Your task to perform on an android device: Open Google Chrome and open the bookmarks view Image 0: 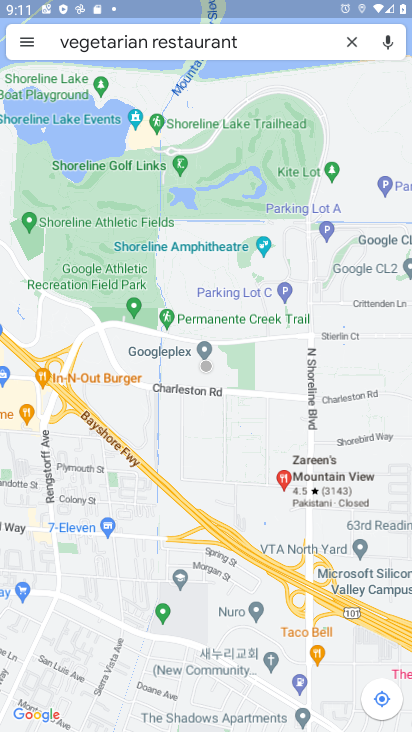
Step 0: drag from (185, 637) to (265, 141)
Your task to perform on an android device: Open Google Chrome and open the bookmarks view Image 1: 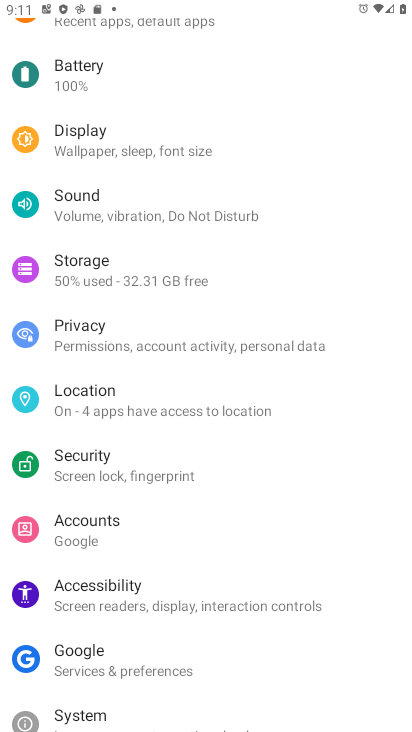
Step 1: press back button
Your task to perform on an android device: Open Google Chrome and open the bookmarks view Image 2: 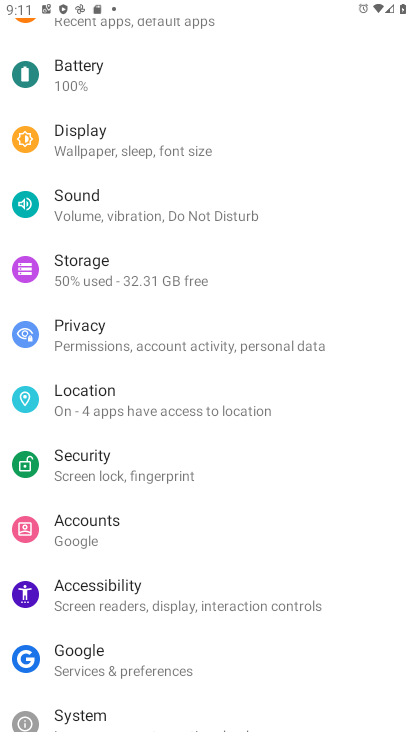
Step 2: press back button
Your task to perform on an android device: Open Google Chrome and open the bookmarks view Image 3: 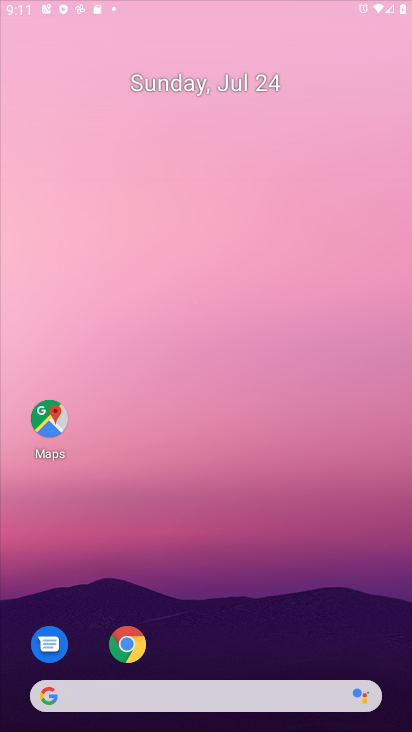
Step 3: press back button
Your task to perform on an android device: Open Google Chrome and open the bookmarks view Image 4: 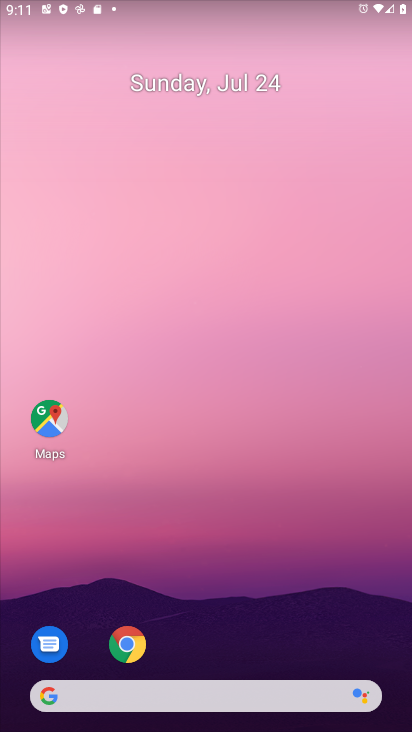
Step 4: drag from (226, 599) to (261, 176)
Your task to perform on an android device: Open Google Chrome and open the bookmarks view Image 5: 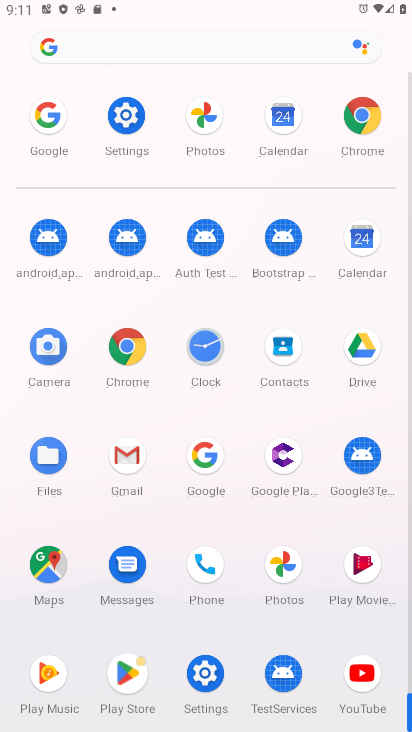
Step 5: click (361, 124)
Your task to perform on an android device: Open Google Chrome and open the bookmarks view Image 6: 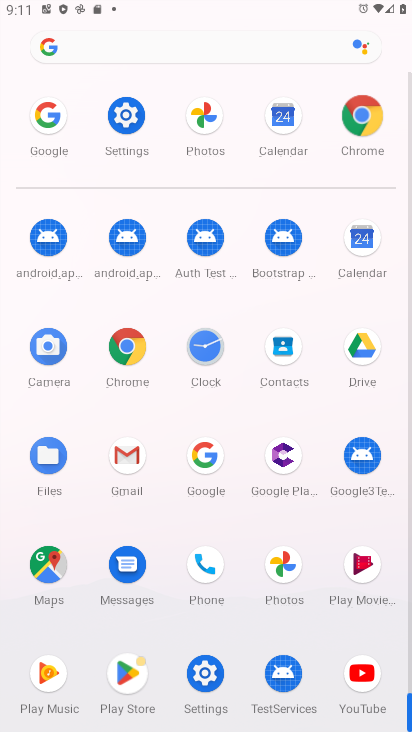
Step 6: click (360, 129)
Your task to perform on an android device: Open Google Chrome and open the bookmarks view Image 7: 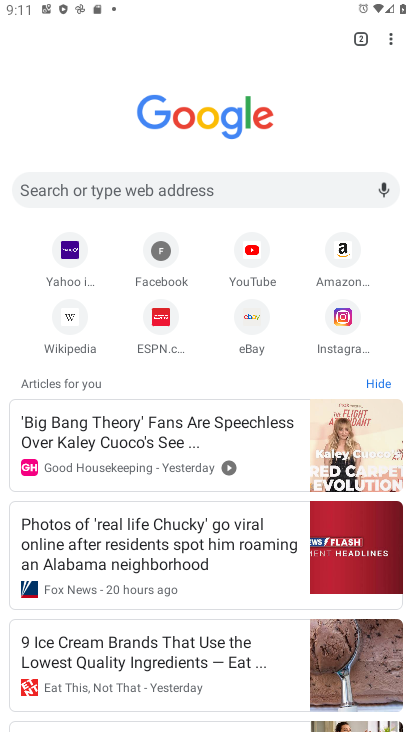
Step 7: drag from (389, 44) to (252, 166)
Your task to perform on an android device: Open Google Chrome and open the bookmarks view Image 8: 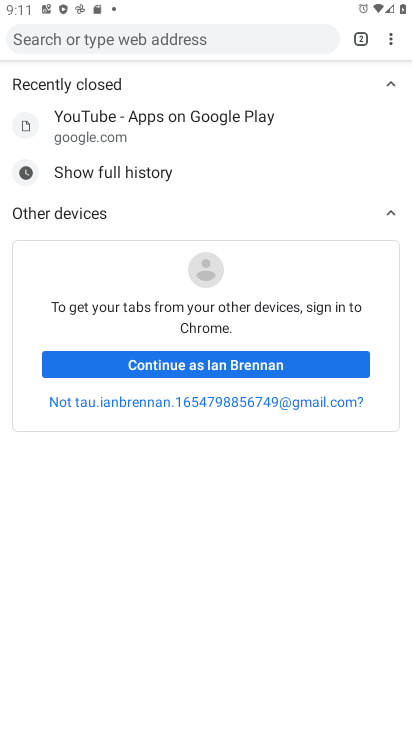
Step 8: click (264, 174)
Your task to perform on an android device: Open Google Chrome and open the bookmarks view Image 9: 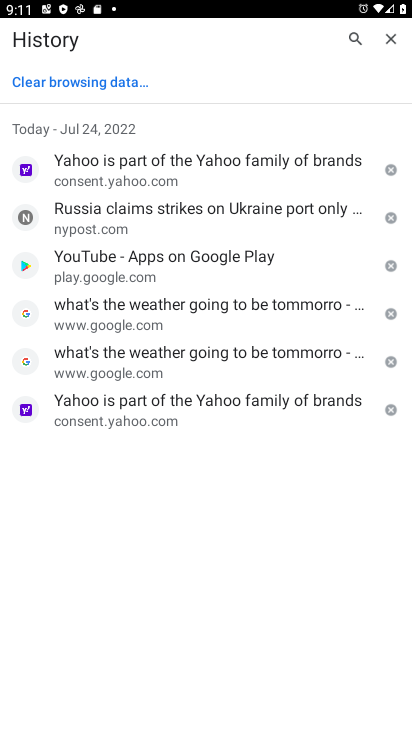
Step 9: task complete